Your task to perform on an android device: Go to privacy settings Image 0: 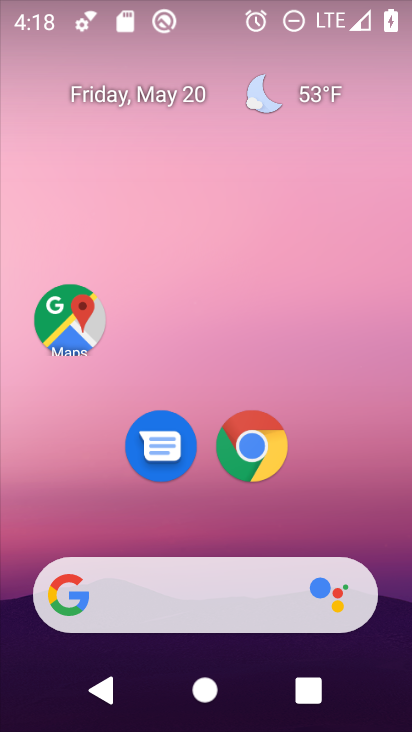
Step 0: drag from (358, 418) to (324, 145)
Your task to perform on an android device: Go to privacy settings Image 1: 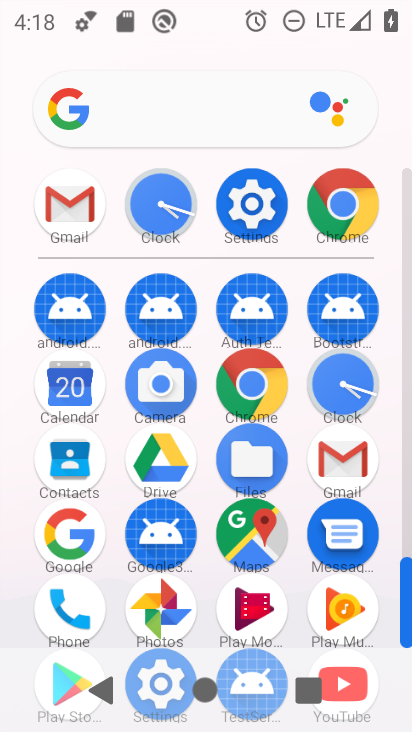
Step 1: click (255, 186)
Your task to perform on an android device: Go to privacy settings Image 2: 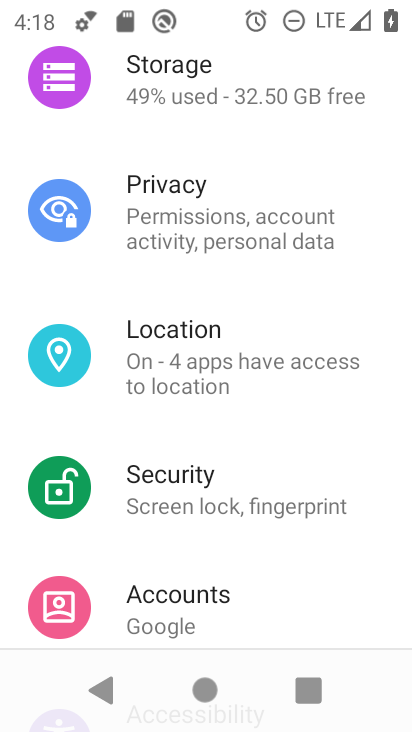
Step 2: drag from (261, 264) to (270, 608)
Your task to perform on an android device: Go to privacy settings Image 3: 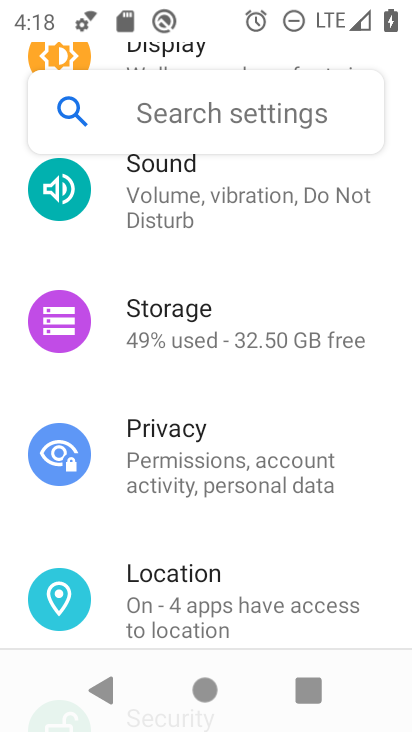
Step 3: click (195, 440)
Your task to perform on an android device: Go to privacy settings Image 4: 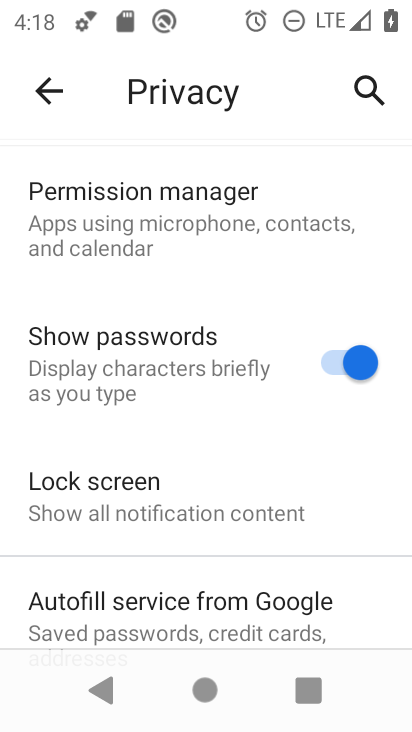
Step 4: task complete